Your task to perform on an android device: Do I have any events tomorrow? Image 0: 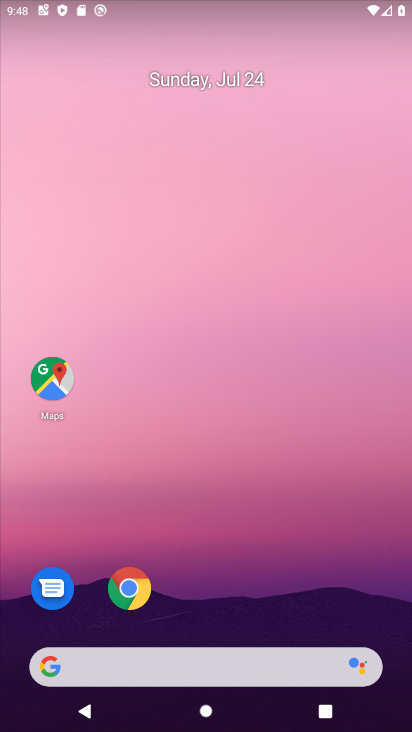
Step 0: click (302, 502)
Your task to perform on an android device: Do I have any events tomorrow? Image 1: 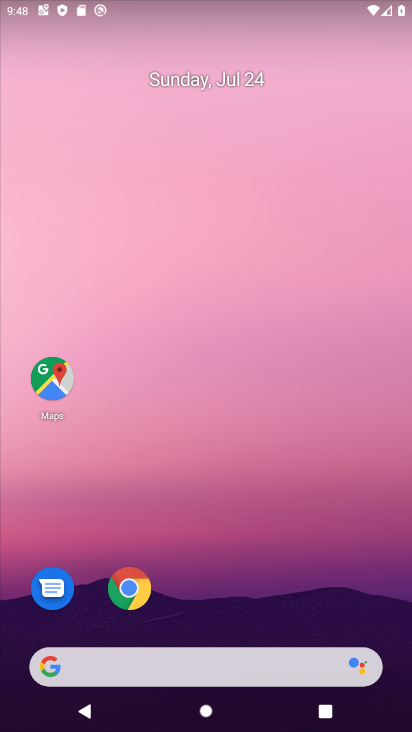
Step 1: drag from (216, 574) to (203, 104)
Your task to perform on an android device: Do I have any events tomorrow? Image 2: 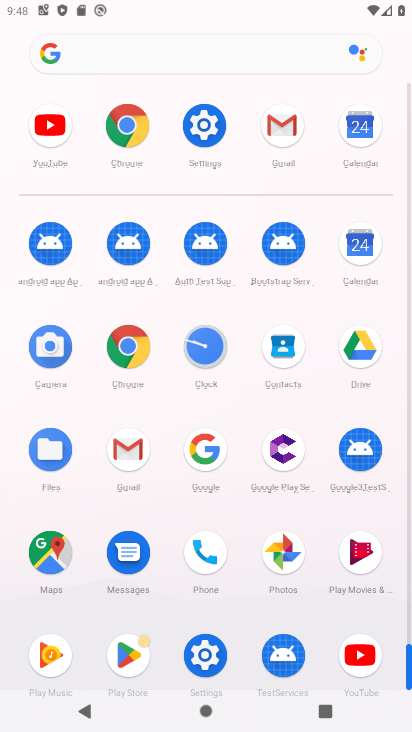
Step 2: click (363, 238)
Your task to perform on an android device: Do I have any events tomorrow? Image 3: 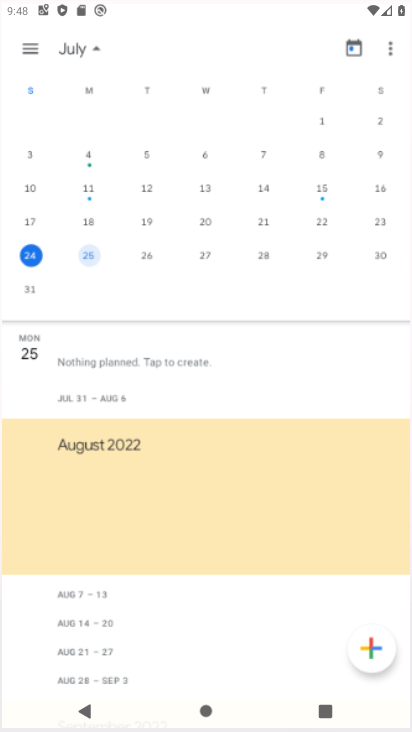
Step 3: click (364, 238)
Your task to perform on an android device: Do I have any events tomorrow? Image 4: 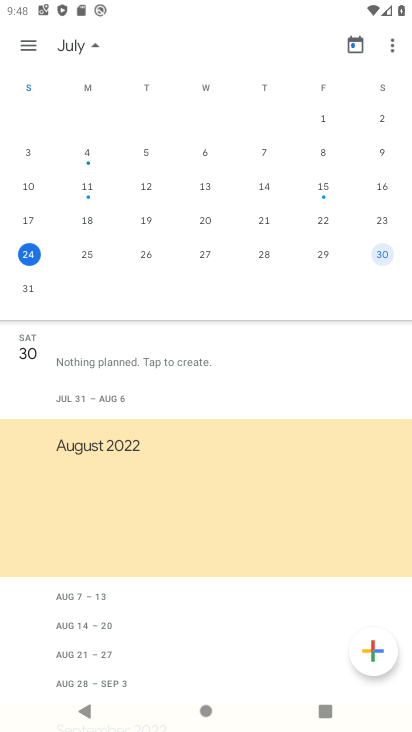
Step 4: click (141, 252)
Your task to perform on an android device: Do I have any events tomorrow? Image 5: 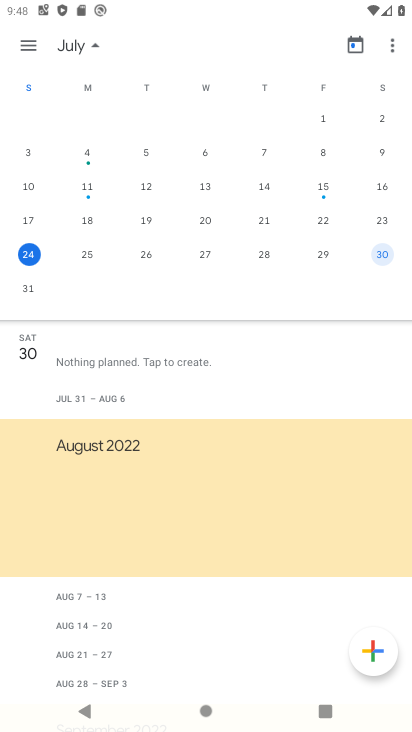
Step 5: click (146, 251)
Your task to perform on an android device: Do I have any events tomorrow? Image 6: 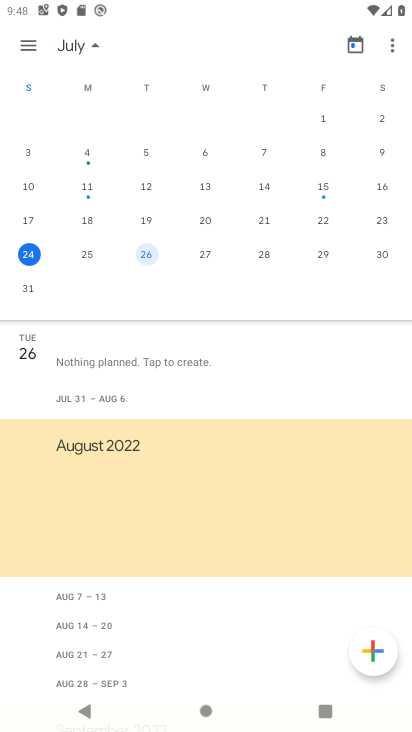
Step 6: click (147, 250)
Your task to perform on an android device: Do I have any events tomorrow? Image 7: 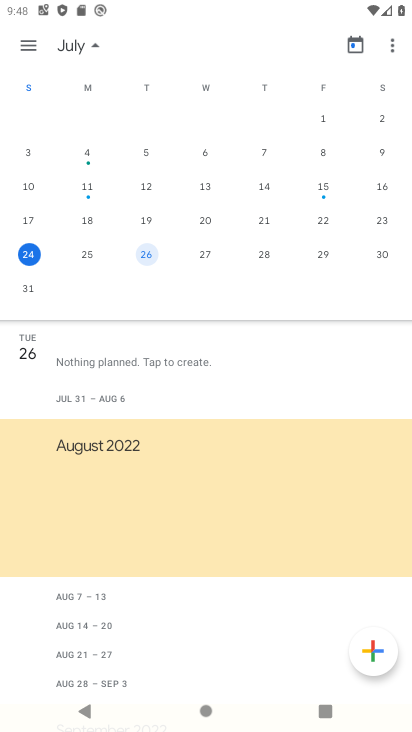
Step 7: click (149, 259)
Your task to perform on an android device: Do I have any events tomorrow? Image 8: 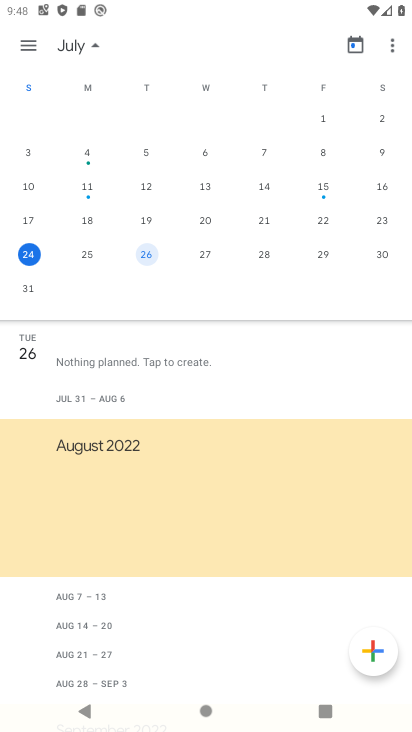
Step 8: click (149, 260)
Your task to perform on an android device: Do I have any events tomorrow? Image 9: 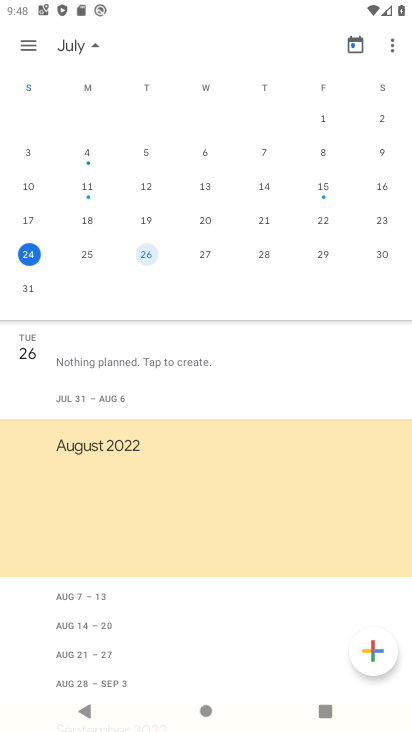
Step 9: click (149, 261)
Your task to perform on an android device: Do I have any events tomorrow? Image 10: 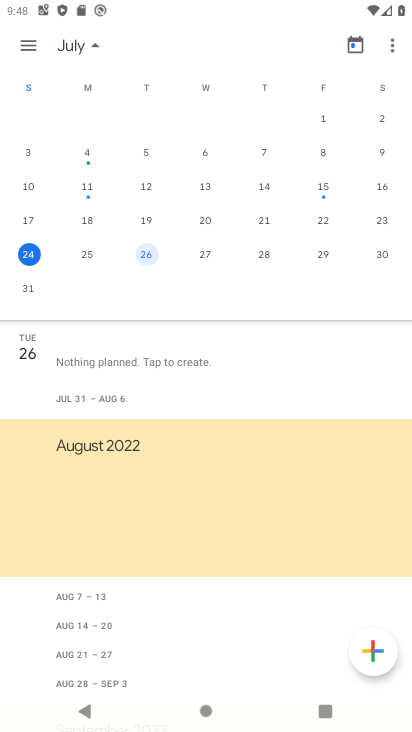
Step 10: click (149, 261)
Your task to perform on an android device: Do I have any events tomorrow? Image 11: 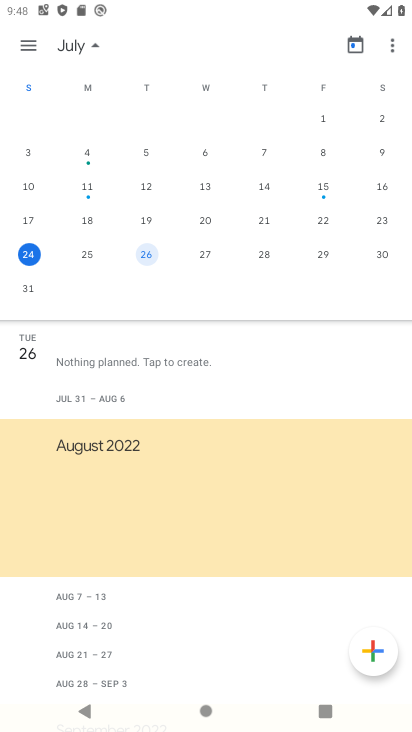
Step 11: click (150, 254)
Your task to perform on an android device: Do I have any events tomorrow? Image 12: 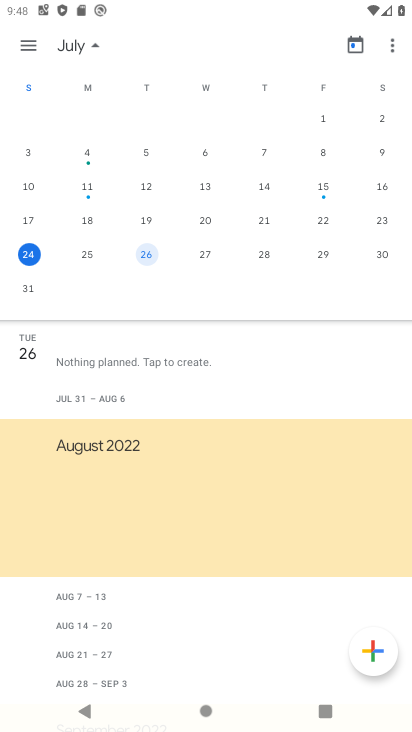
Step 12: click (154, 253)
Your task to perform on an android device: Do I have any events tomorrow? Image 13: 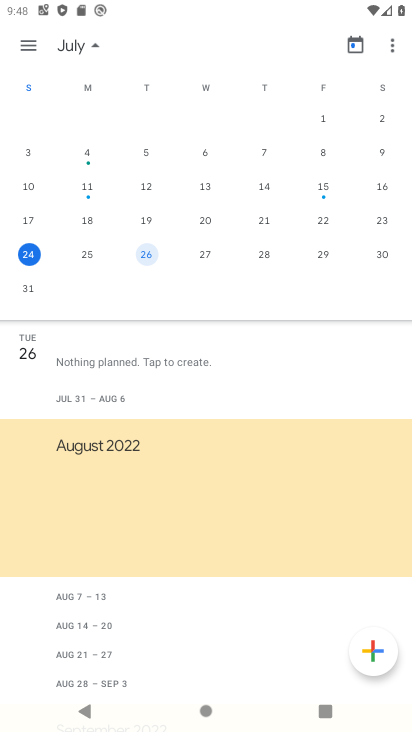
Step 13: task complete